Your task to perform on an android device: open app "Cash App" Image 0: 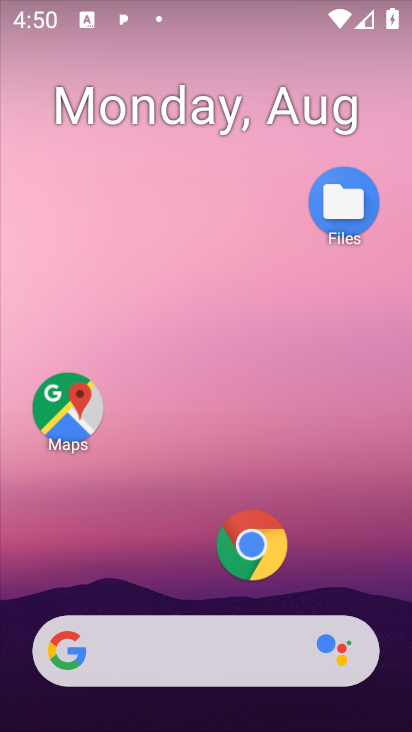
Step 0: drag from (130, 585) to (232, 39)
Your task to perform on an android device: open app "Cash App" Image 1: 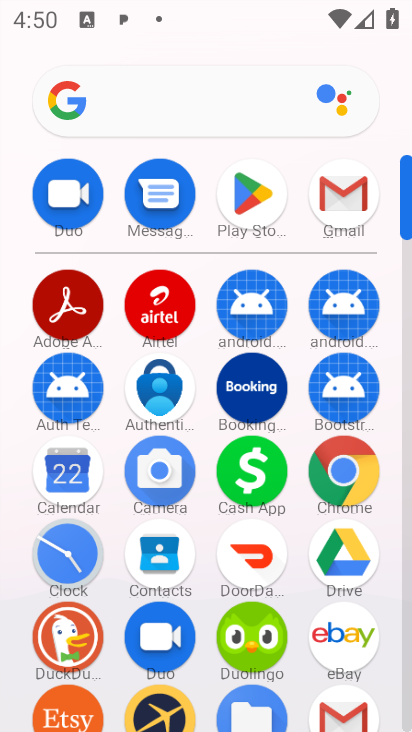
Step 1: click (255, 201)
Your task to perform on an android device: open app "Cash App" Image 2: 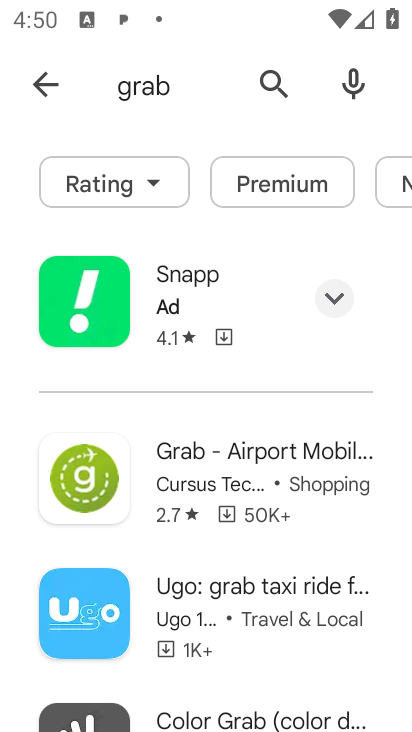
Step 2: click (286, 80)
Your task to perform on an android device: open app "Cash App" Image 3: 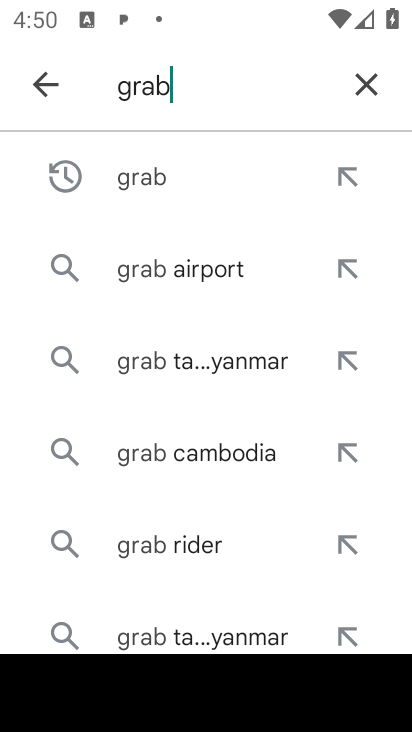
Step 3: click (367, 83)
Your task to perform on an android device: open app "Cash App" Image 4: 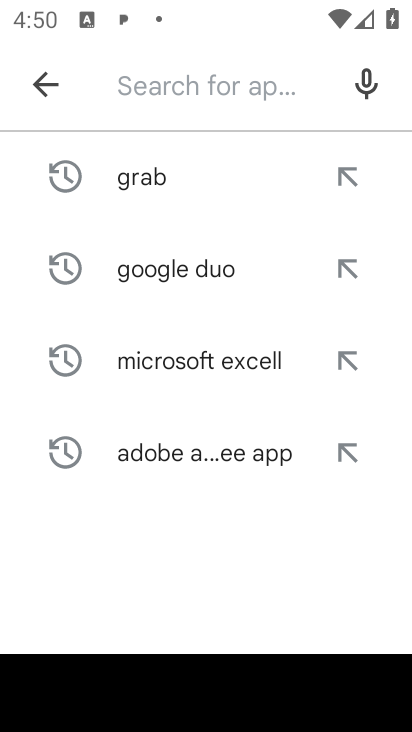
Step 4: click (161, 81)
Your task to perform on an android device: open app "Cash App" Image 5: 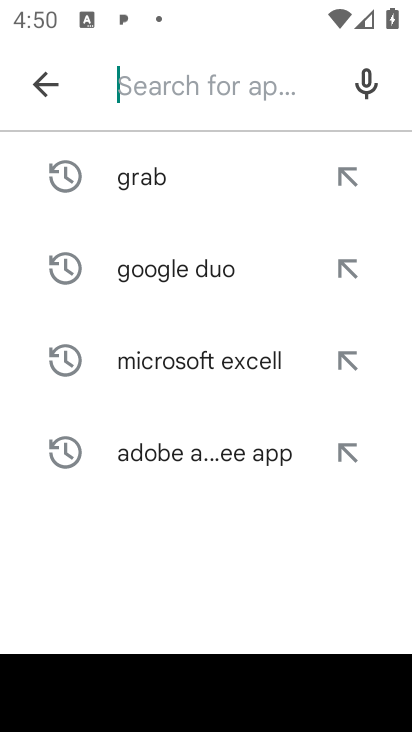
Step 5: type "Cash App"
Your task to perform on an android device: open app "Cash App" Image 6: 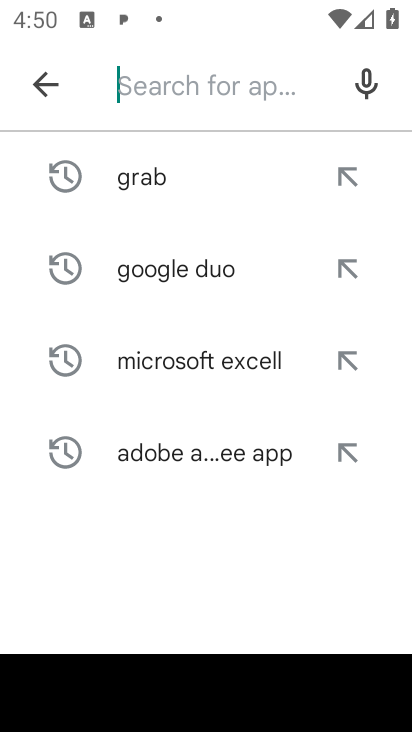
Step 6: click (209, 542)
Your task to perform on an android device: open app "Cash App" Image 7: 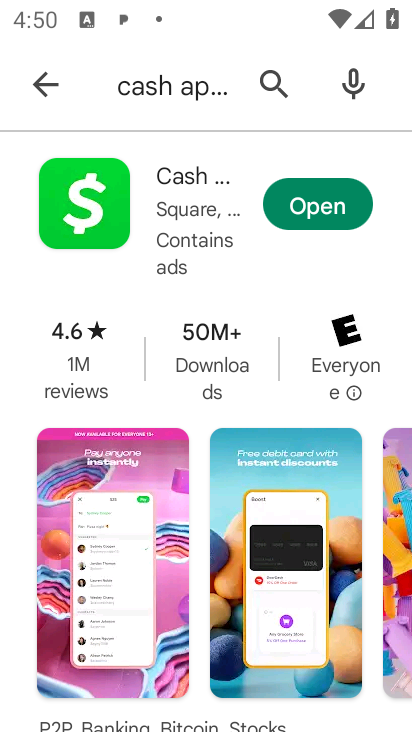
Step 7: click (304, 217)
Your task to perform on an android device: open app "Cash App" Image 8: 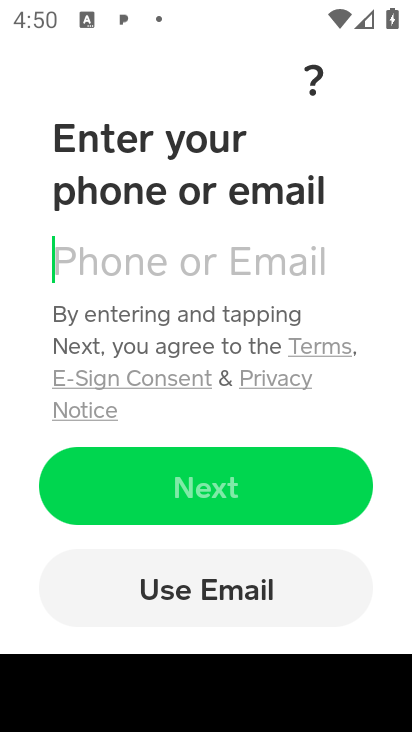
Step 8: task complete